Your task to perform on an android device: turn off wifi Image 0: 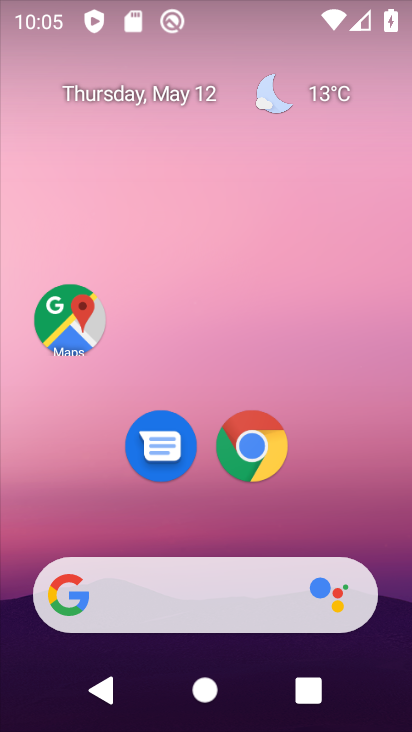
Step 0: drag from (314, 585) to (337, 90)
Your task to perform on an android device: turn off wifi Image 1: 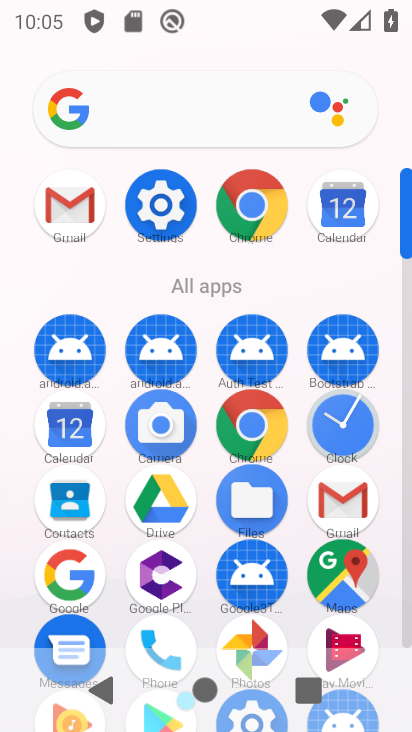
Step 1: click (148, 189)
Your task to perform on an android device: turn off wifi Image 2: 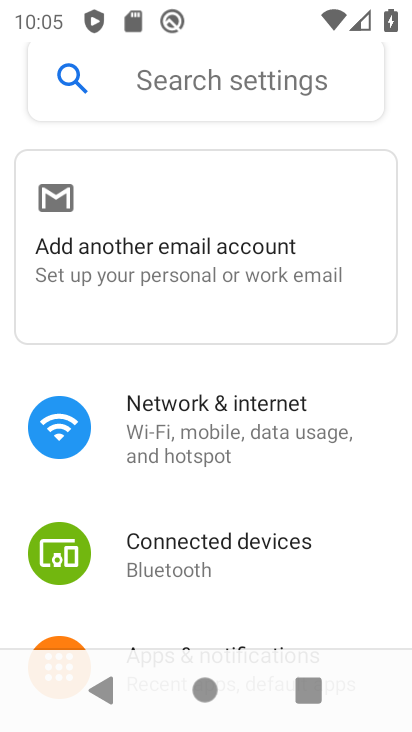
Step 2: click (270, 406)
Your task to perform on an android device: turn off wifi Image 3: 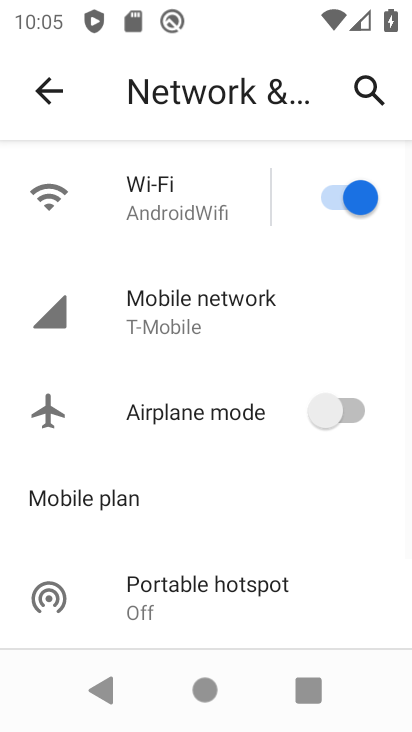
Step 3: click (334, 193)
Your task to perform on an android device: turn off wifi Image 4: 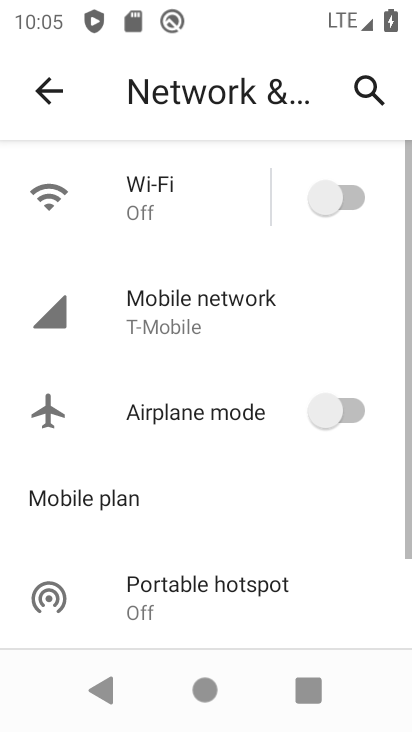
Step 4: task complete